Your task to perform on an android device: Go to settings Image 0: 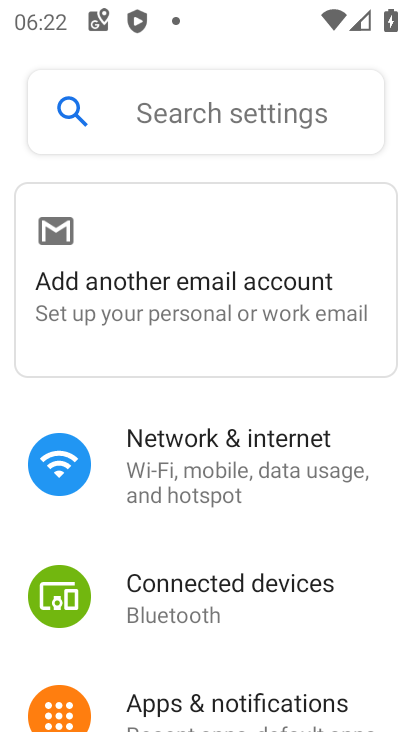
Step 0: drag from (224, 661) to (273, 216)
Your task to perform on an android device: Go to settings Image 1: 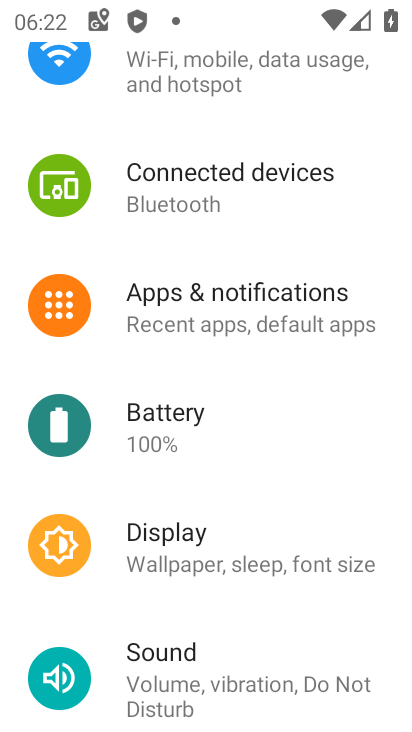
Step 1: click (256, 640)
Your task to perform on an android device: Go to settings Image 2: 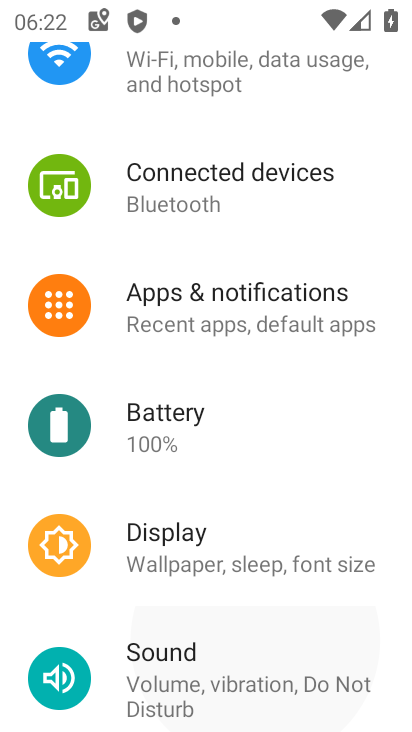
Step 2: click (247, 592)
Your task to perform on an android device: Go to settings Image 3: 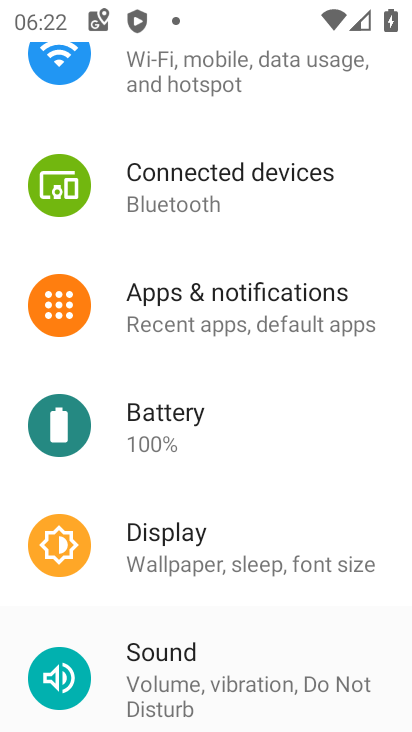
Step 3: task complete